Your task to perform on an android device: Open Google Maps and go to "Timeline" Image 0: 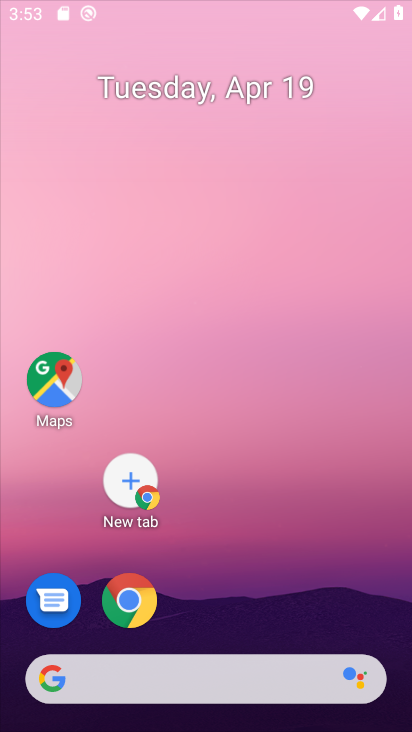
Step 0: click (133, 596)
Your task to perform on an android device: Open Google Maps and go to "Timeline" Image 1: 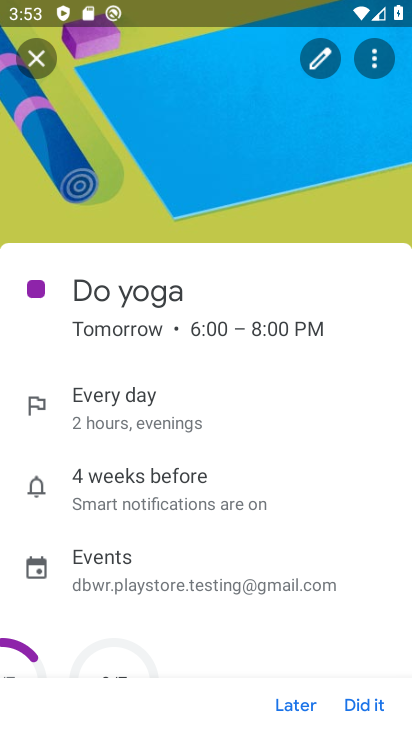
Step 1: press home button
Your task to perform on an android device: Open Google Maps and go to "Timeline" Image 2: 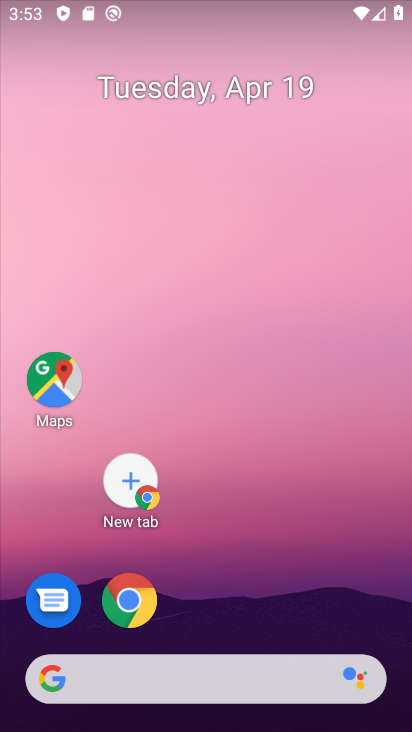
Step 2: click (54, 373)
Your task to perform on an android device: Open Google Maps and go to "Timeline" Image 3: 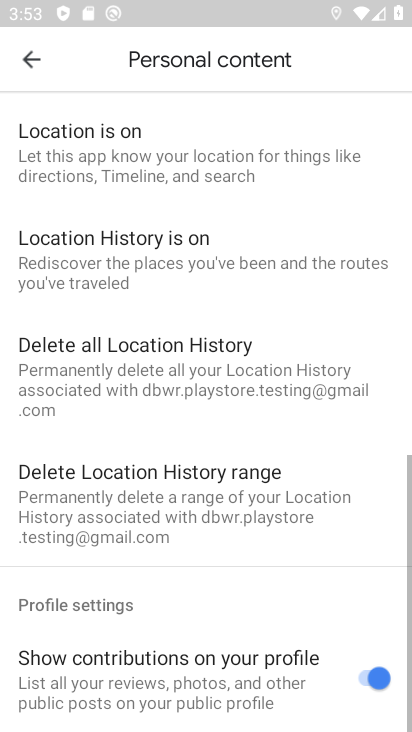
Step 3: click (41, 67)
Your task to perform on an android device: Open Google Maps and go to "Timeline" Image 4: 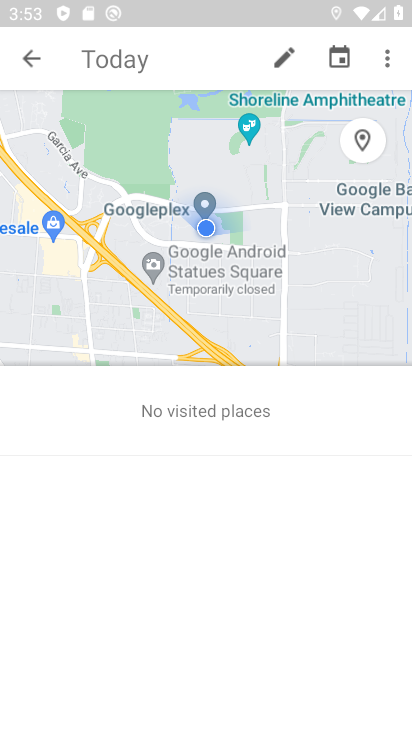
Step 4: click (41, 67)
Your task to perform on an android device: Open Google Maps and go to "Timeline" Image 5: 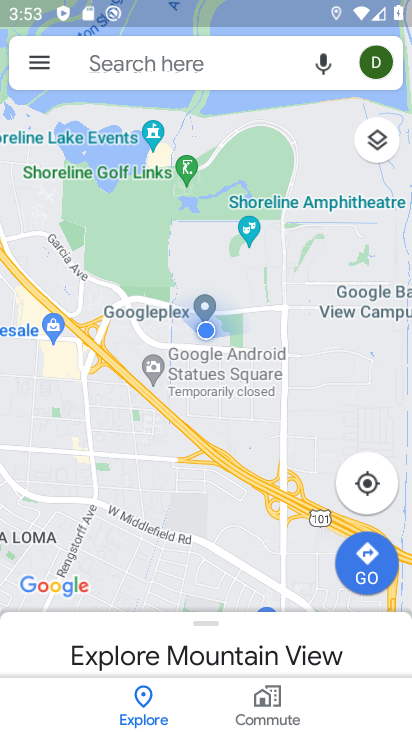
Step 5: click (41, 67)
Your task to perform on an android device: Open Google Maps and go to "Timeline" Image 6: 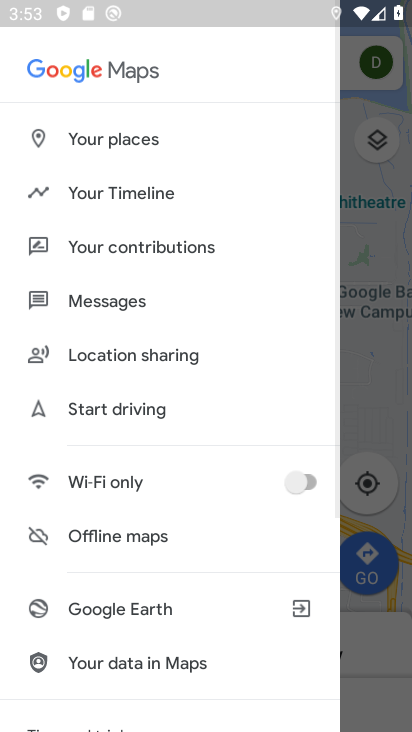
Step 6: click (107, 207)
Your task to perform on an android device: Open Google Maps and go to "Timeline" Image 7: 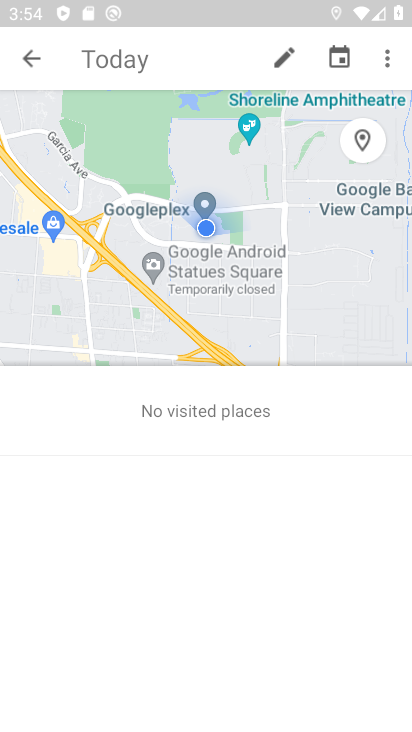
Step 7: task complete